Your task to perform on an android device: Open the stopwatch Image 0: 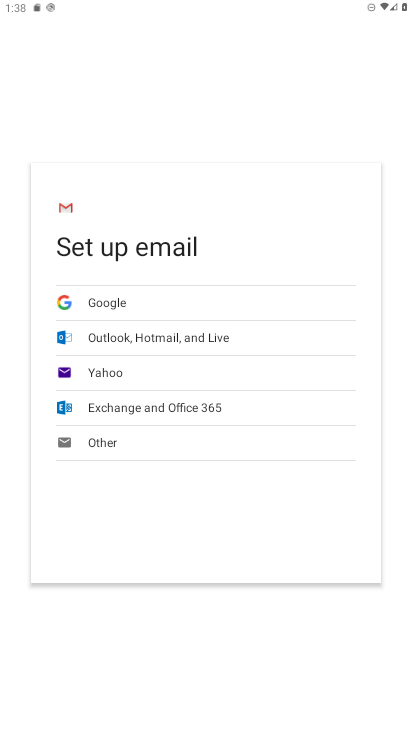
Step 0: task complete